Your task to perform on an android device: Open the Play Movies app and select the watchlist tab. Image 0: 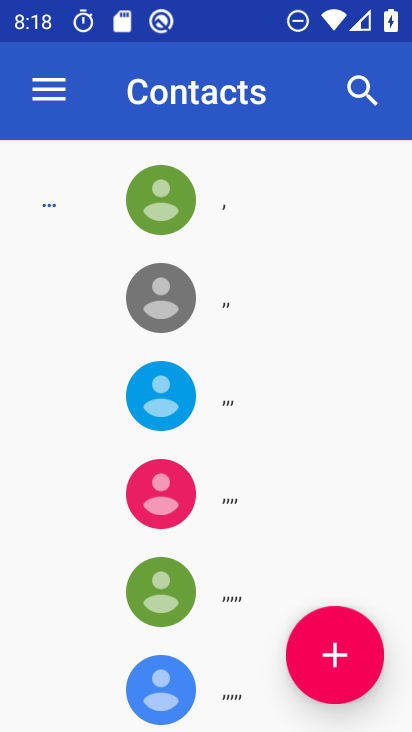
Step 0: press home button
Your task to perform on an android device: Open the Play Movies app and select the watchlist tab. Image 1: 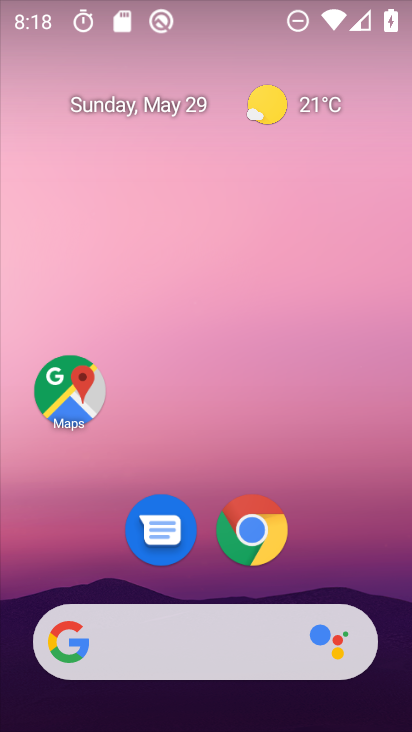
Step 1: drag from (248, 662) to (298, 102)
Your task to perform on an android device: Open the Play Movies app and select the watchlist tab. Image 2: 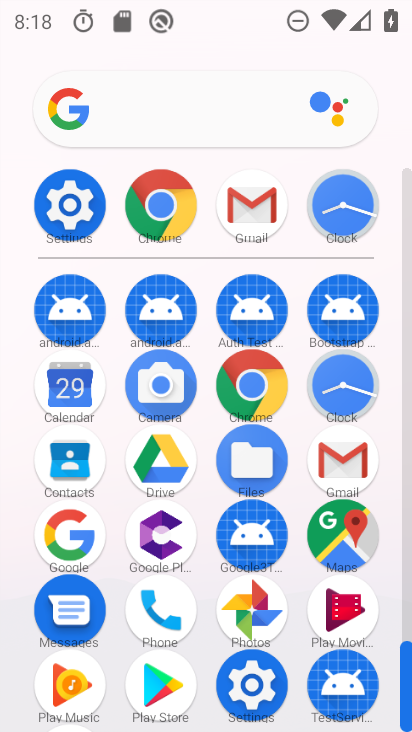
Step 2: click (347, 597)
Your task to perform on an android device: Open the Play Movies app and select the watchlist tab. Image 3: 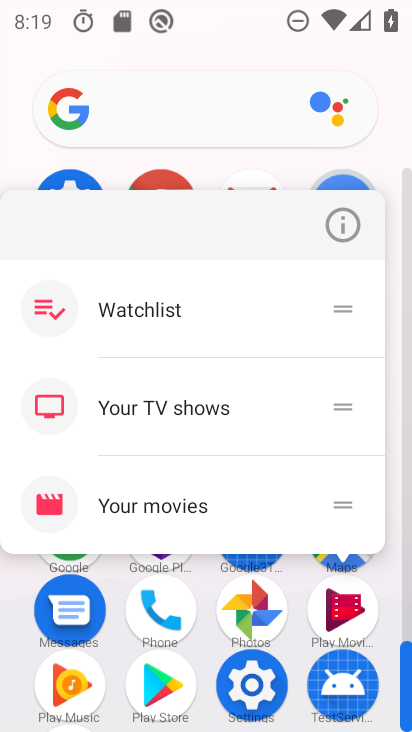
Step 3: click (337, 623)
Your task to perform on an android device: Open the Play Movies app and select the watchlist tab. Image 4: 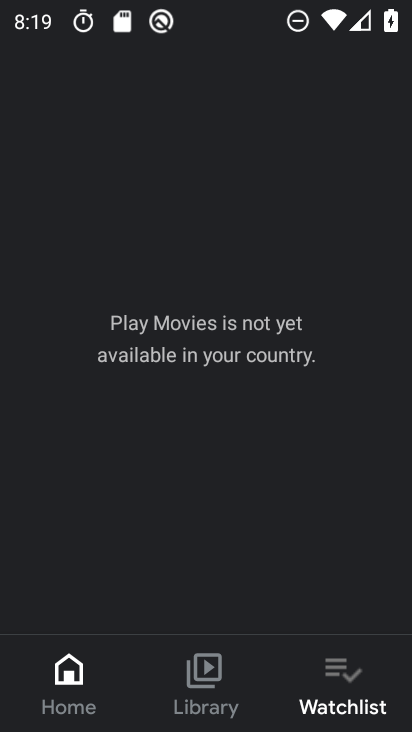
Step 4: click (213, 673)
Your task to perform on an android device: Open the Play Movies app and select the watchlist tab. Image 5: 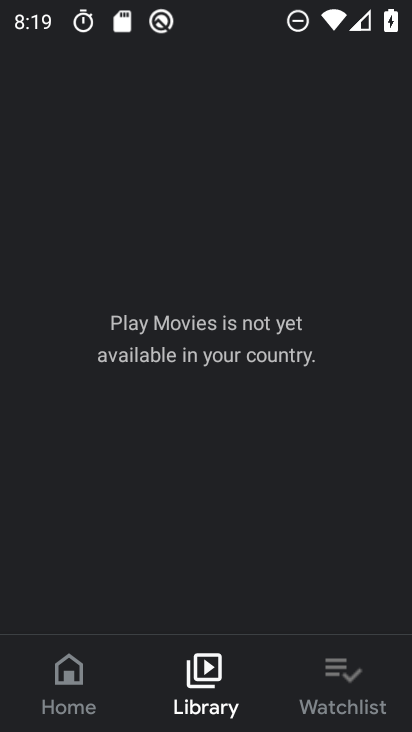
Step 5: click (341, 665)
Your task to perform on an android device: Open the Play Movies app and select the watchlist tab. Image 6: 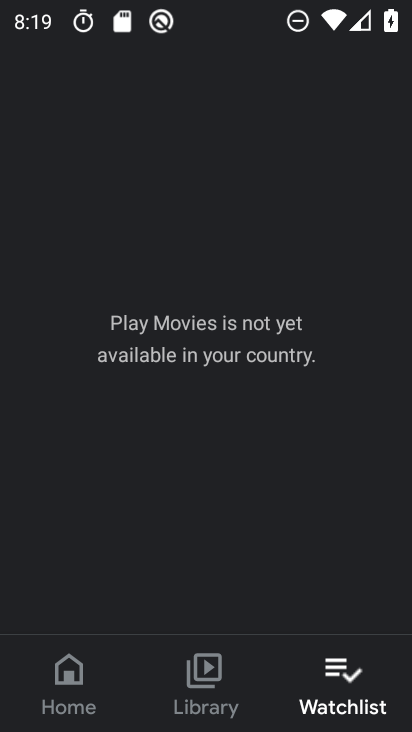
Step 6: task complete